Your task to perform on an android device: Open the calendar app, open the side menu, and click the "Day" option Image 0: 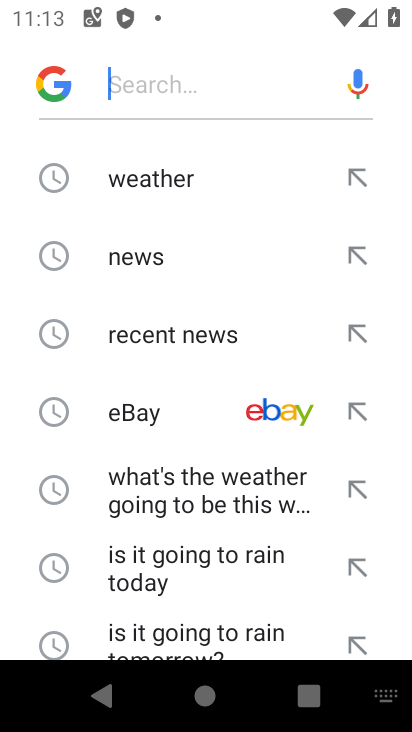
Step 0: press home button
Your task to perform on an android device: Open the calendar app, open the side menu, and click the "Day" option Image 1: 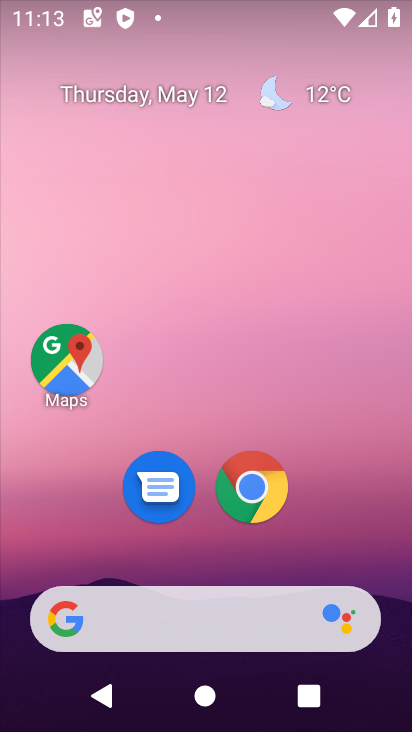
Step 1: drag from (352, 555) to (215, 0)
Your task to perform on an android device: Open the calendar app, open the side menu, and click the "Day" option Image 2: 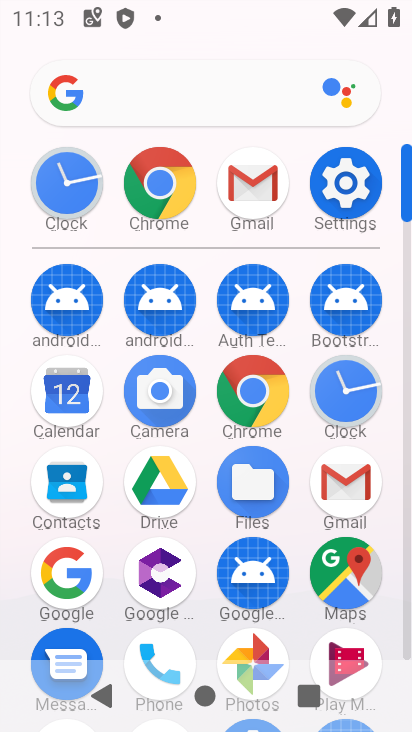
Step 2: click (58, 391)
Your task to perform on an android device: Open the calendar app, open the side menu, and click the "Day" option Image 3: 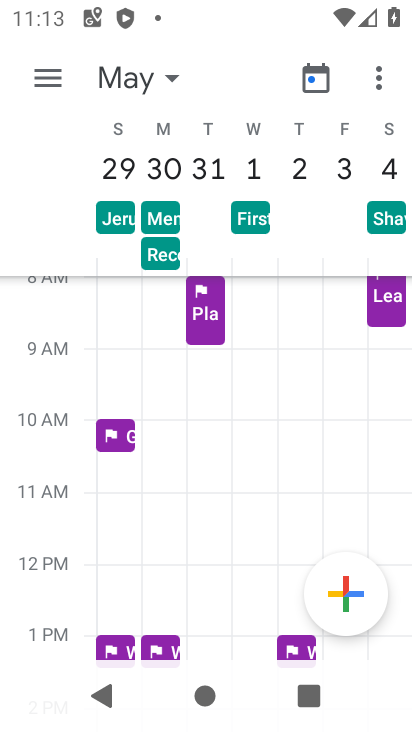
Step 3: click (51, 80)
Your task to perform on an android device: Open the calendar app, open the side menu, and click the "Day" option Image 4: 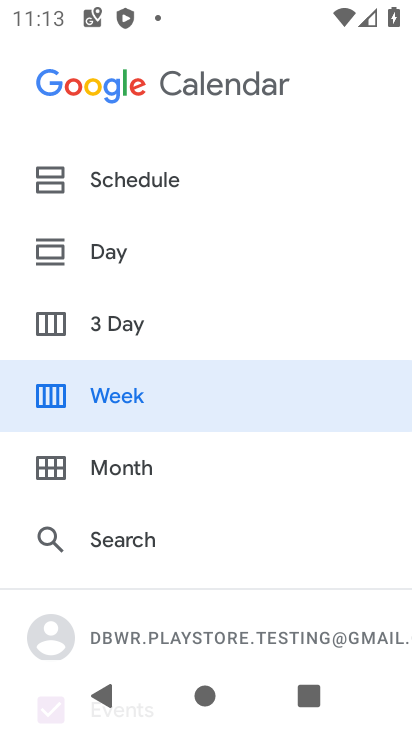
Step 4: click (81, 249)
Your task to perform on an android device: Open the calendar app, open the side menu, and click the "Day" option Image 5: 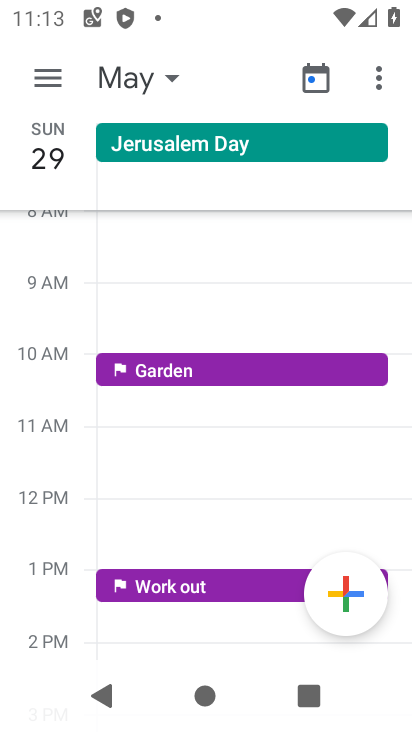
Step 5: task complete